Your task to perform on an android device: turn notification dots on Image 0: 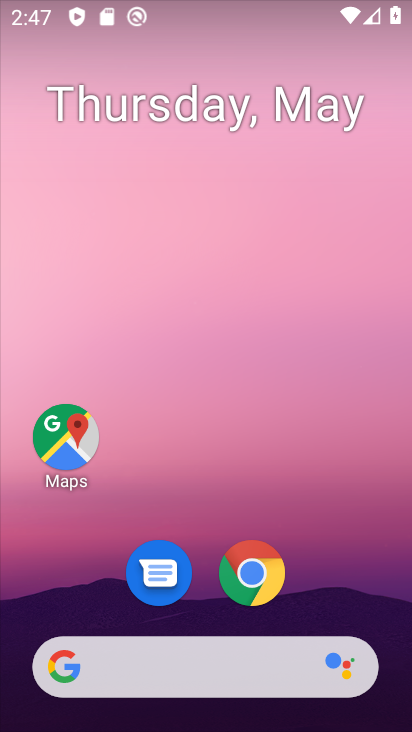
Step 0: drag from (84, 636) to (180, 100)
Your task to perform on an android device: turn notification dots on Image 1: 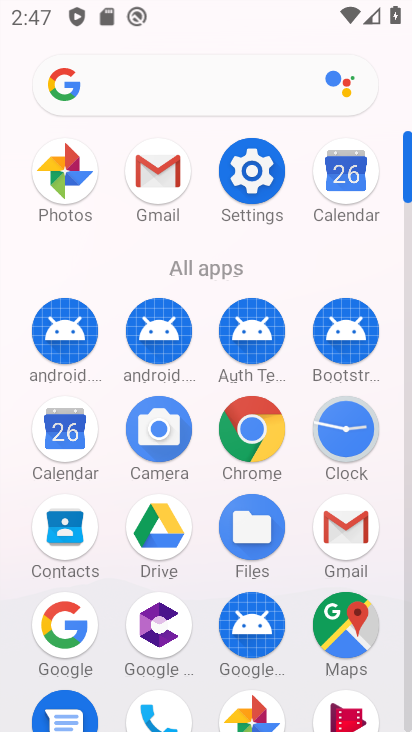
Step 1: drag from (148, 624) to (202, 391)
Your task to perform on an android device: turn notification dots on Image 2: 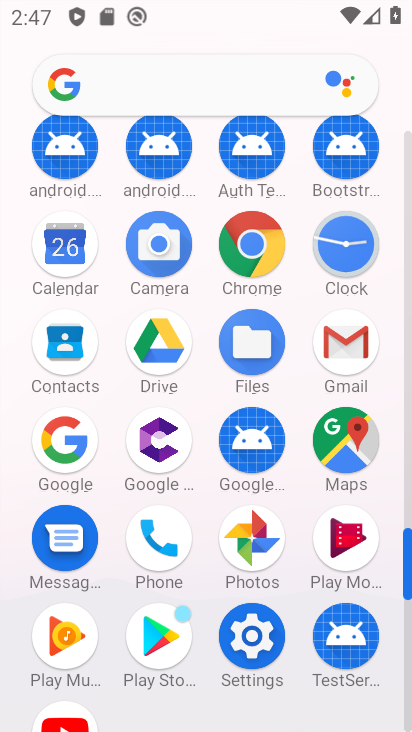
Step 2: click (255, 667)
Your task to perform on an android device: turn notification dots on Image 3: 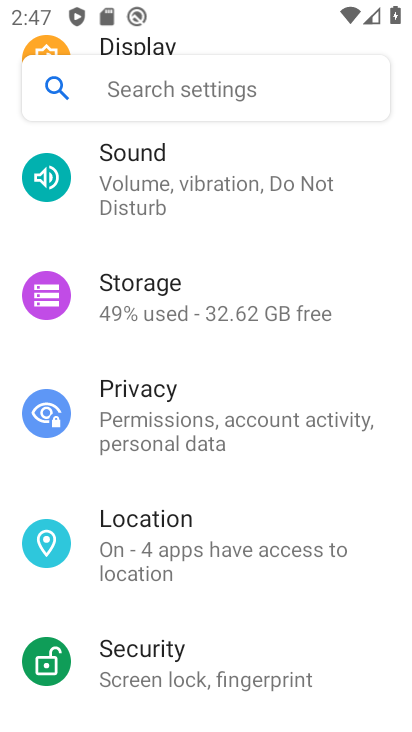
Step 3: drag from (170, 692) to (240, 703)
Your task to perform on an android device: turn notification dots on Image 4: 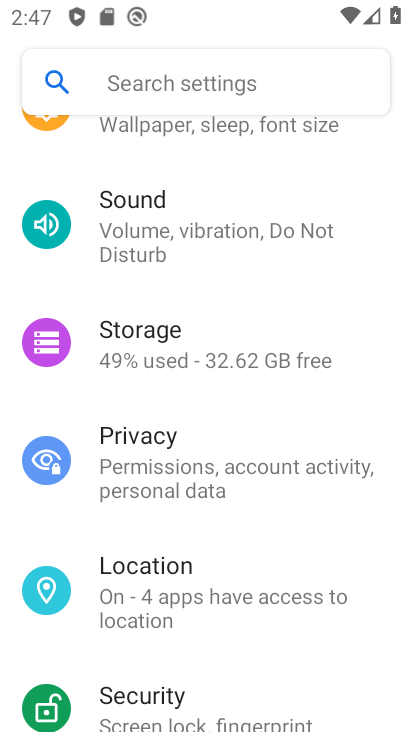
Step 4: drag from (269, 276) to (244, 556)
Your task to perform on an android device: turn notification dots on Image 5: 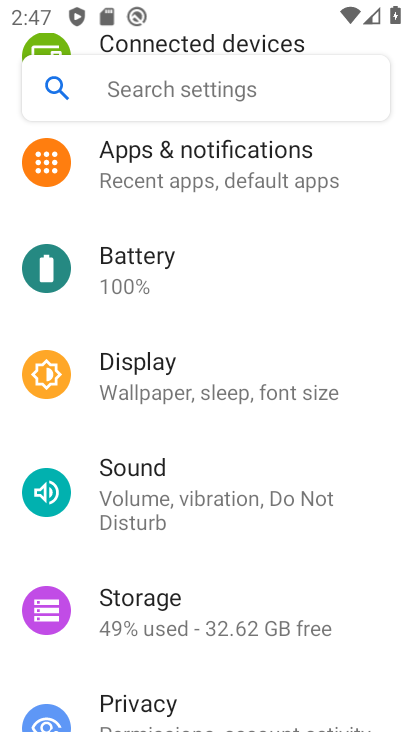
Step 5: click (252, 208)
Your task to perform on an android device: turn notification dots on Image 6: 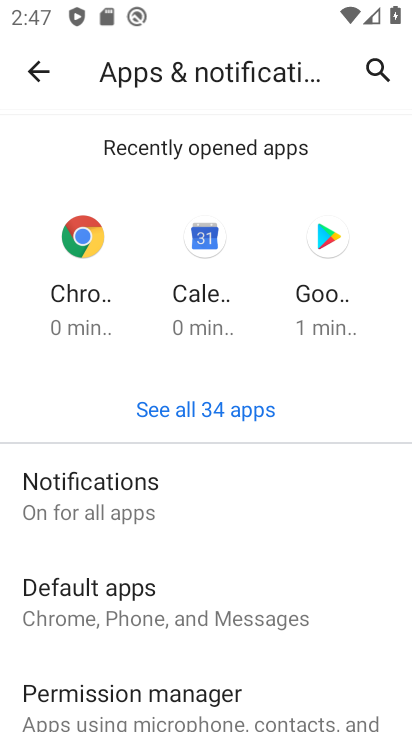
Step 6: drag from (187, 629) to (368, 260)
Your task to perform on an android device: turn notification dots on Image 7: 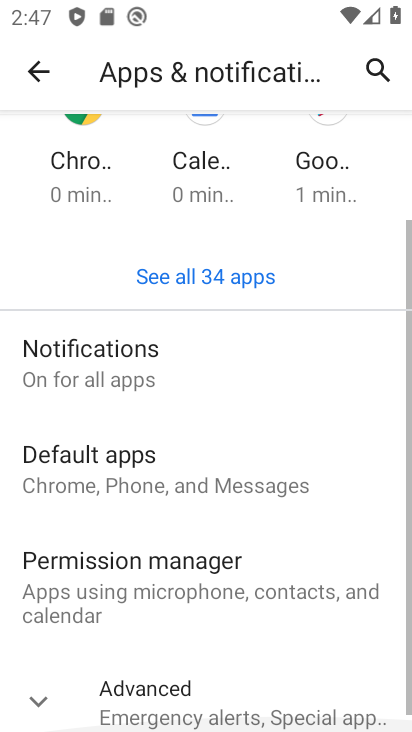
Step 7: click (210, 667)
Your task to perform on an android device: turn notification dots on Image 8: 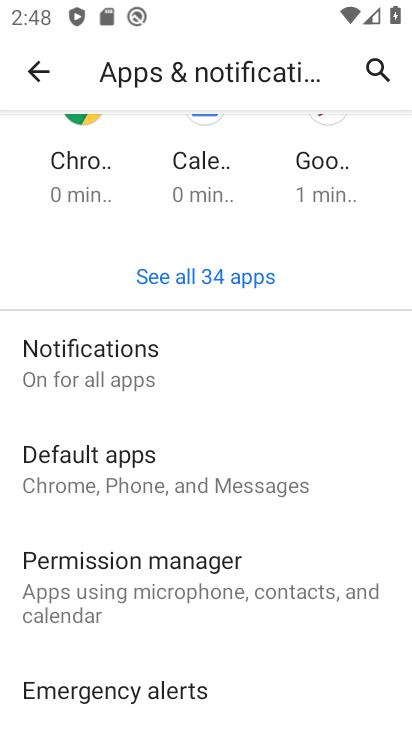
Step 8: drag from (204, 658) to (299, 279)
Your task to perform on an android device: turn notification dots on Image 9: 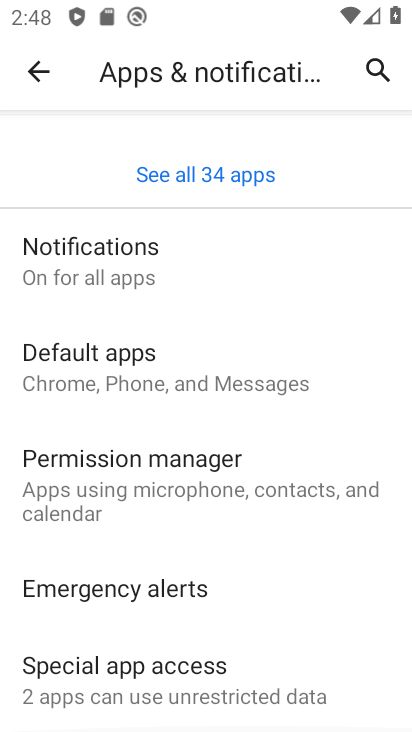
Step 9: click (221, 264)
Your task to perform on an android device: turn notification dots on Image 10: 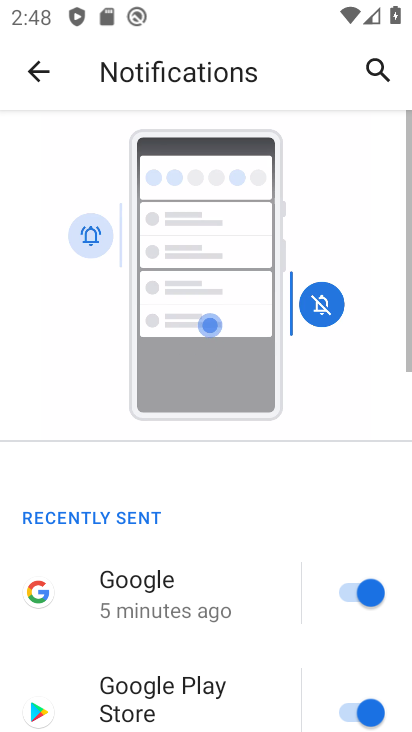
Step 10: drag from (178, 669) to (404, 15)
Your task to perform on an android device: turn notification dots on Image 11: 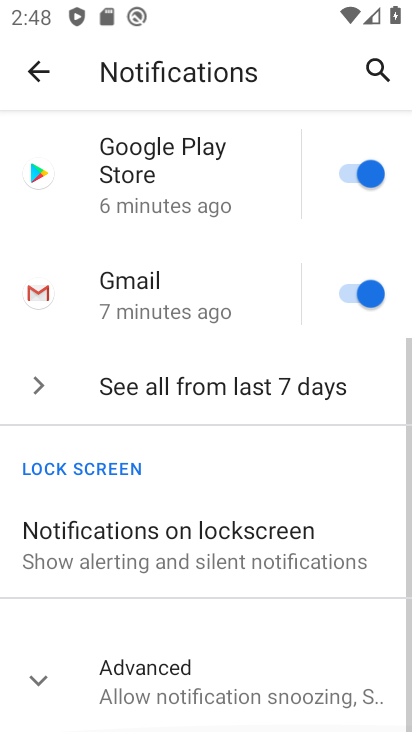
Step 11: drag from (200, 640) to (333, 327)
Your task to perform on an android device: turn notification dots on Image 12: 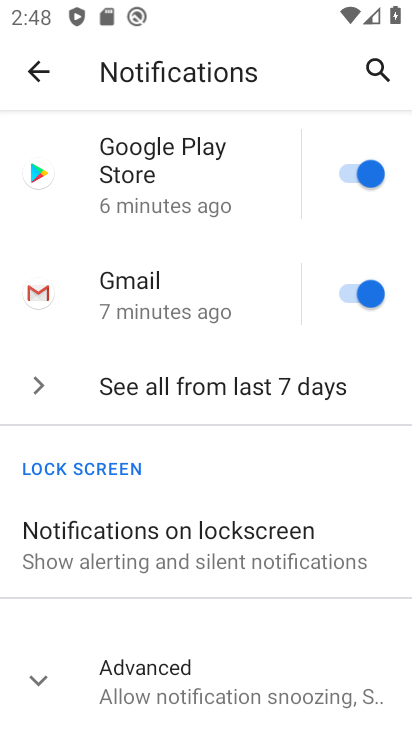
Step 12: click (301, 684)
Your task to perform on an android device: turn notification dots on Image 13: 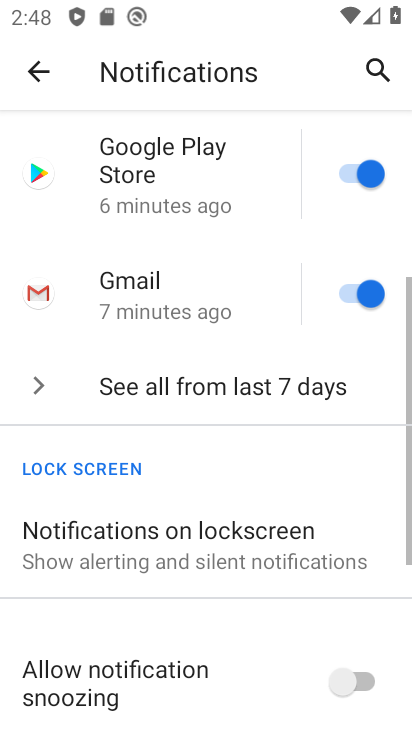
Step 13: task complete